Your task to perform on an android device: Open a new Chrome incognito tab Image 0: 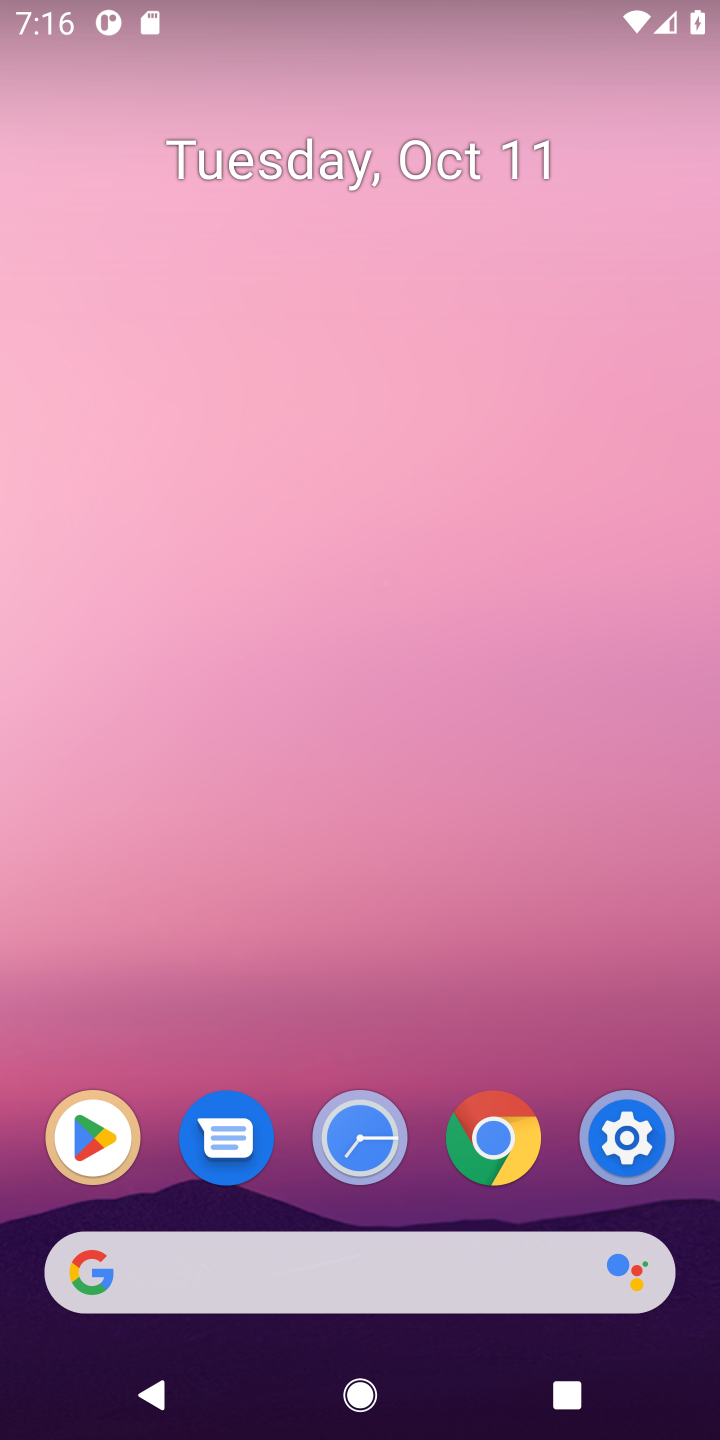
Step 0: click (501, 1111)
Your task to perform on an android device: Open a new Chrome incognito tab Image 1: 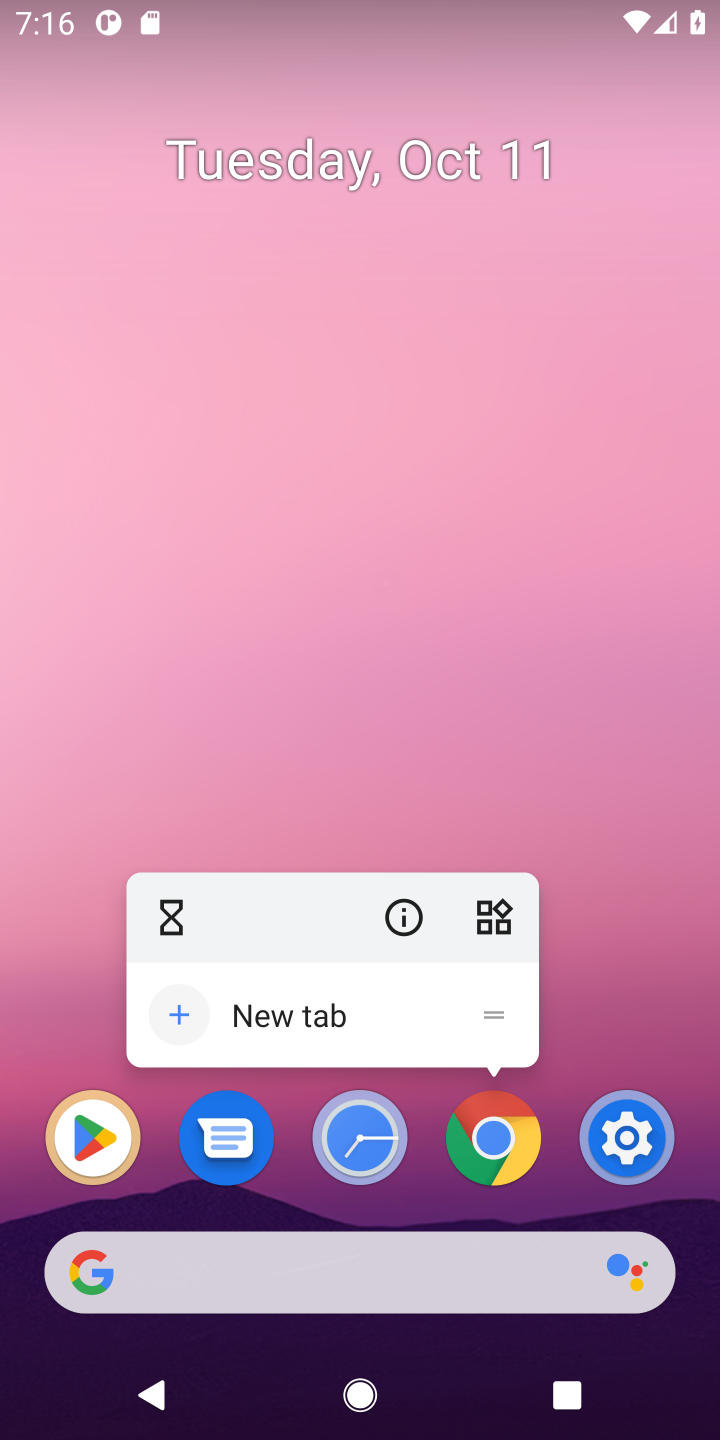
Step 1: click (484, 1132)
Your task to perform on an android device: Open a new Chrome incognito tab Image 2: 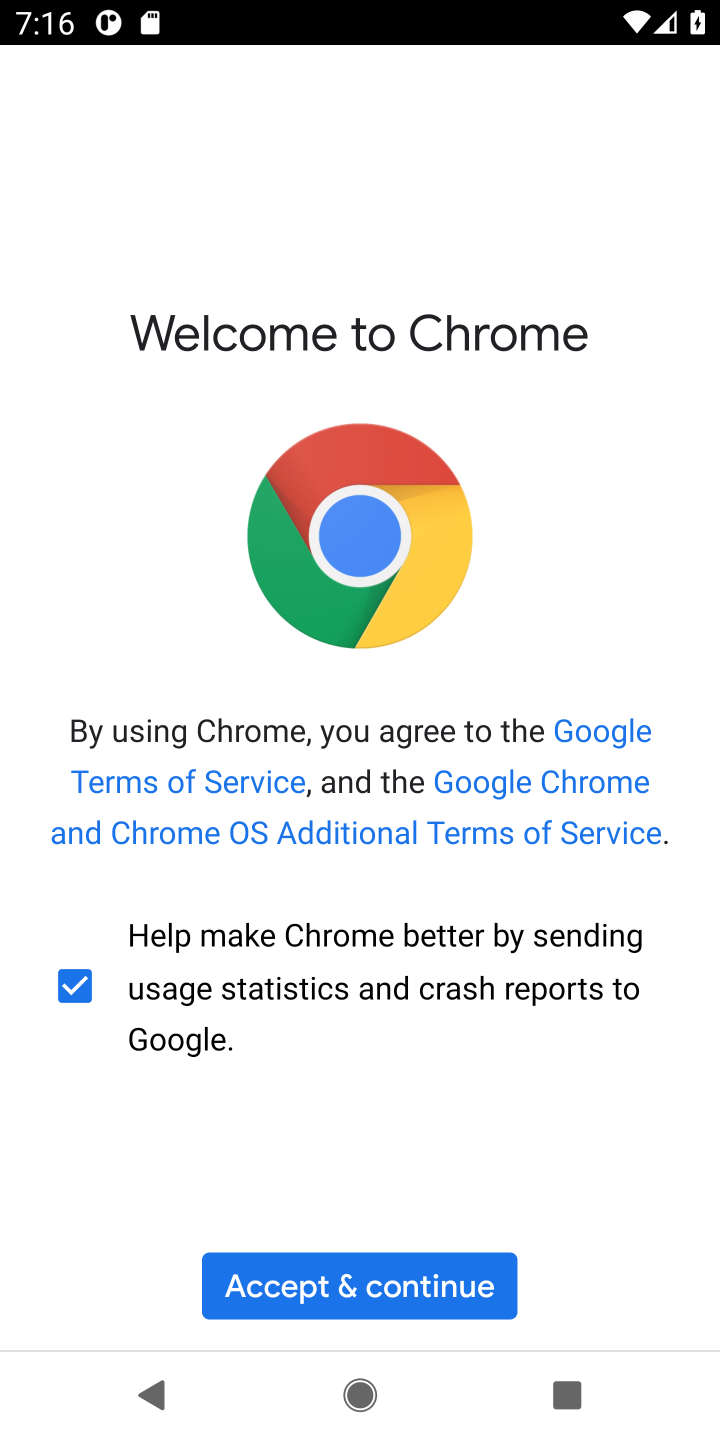
Step 2: click (317, 1280)
Your task to perform on an android device: Open a new Chrome incognito tab Image 3: 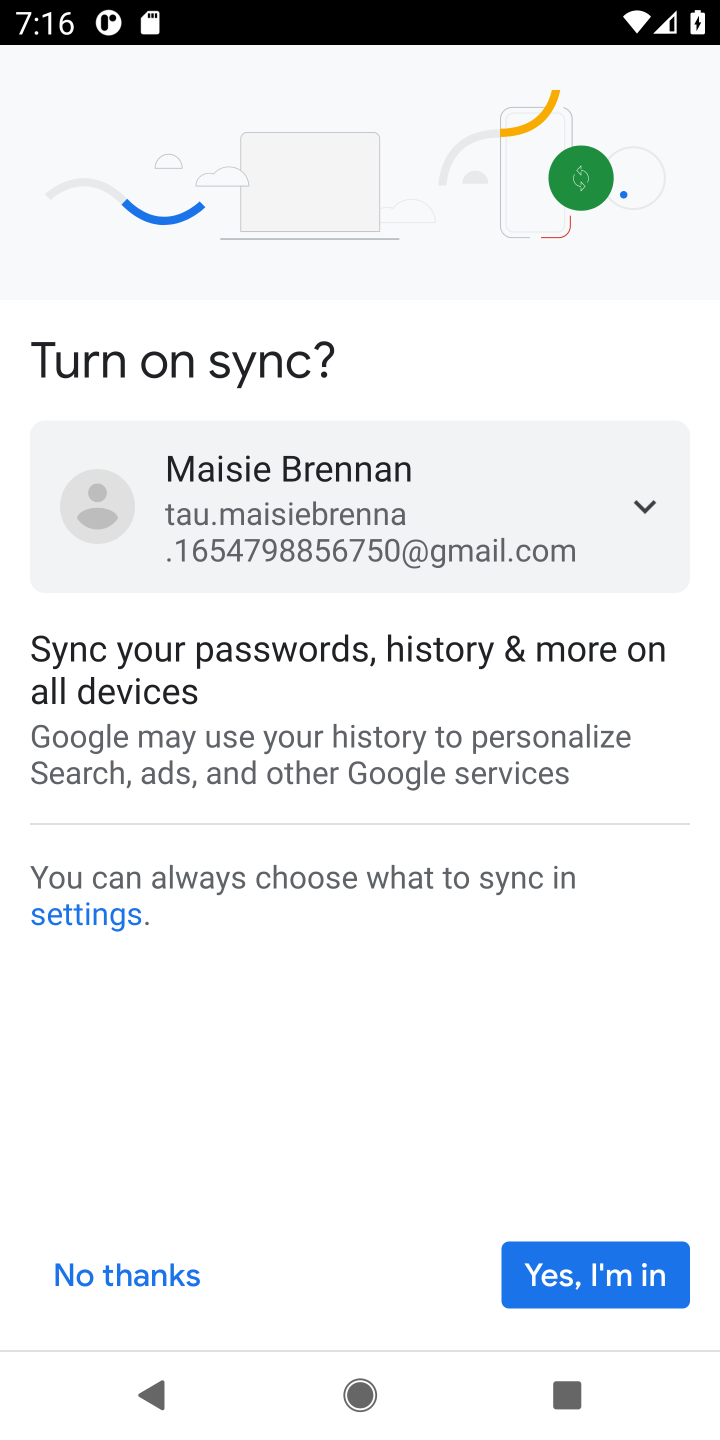
Step 3: click (552, 1283)
Your task to perform on an android device: Open a new Chrome incognito tab Image 4: 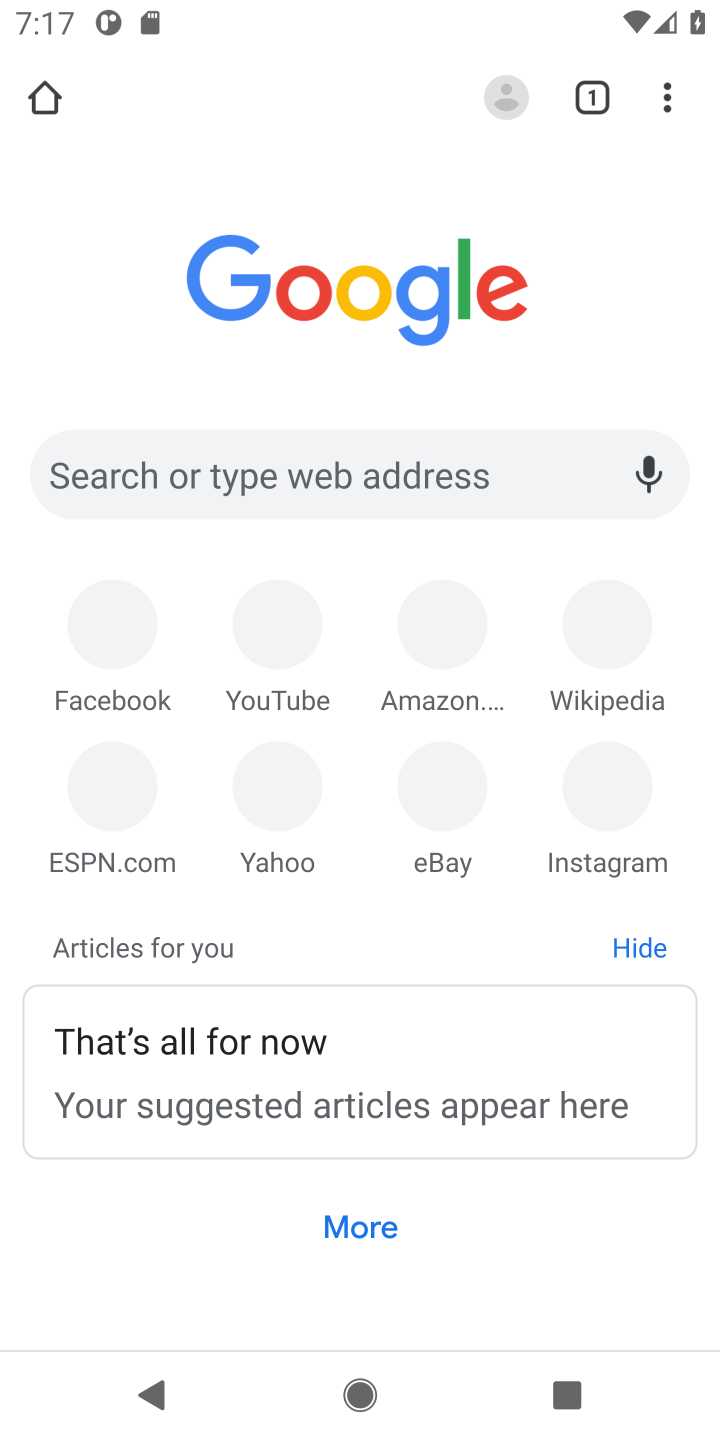
Step 4: click (665, 89)
Your task to perform on an android device: Open a new Chrome incognito tab Image 5: 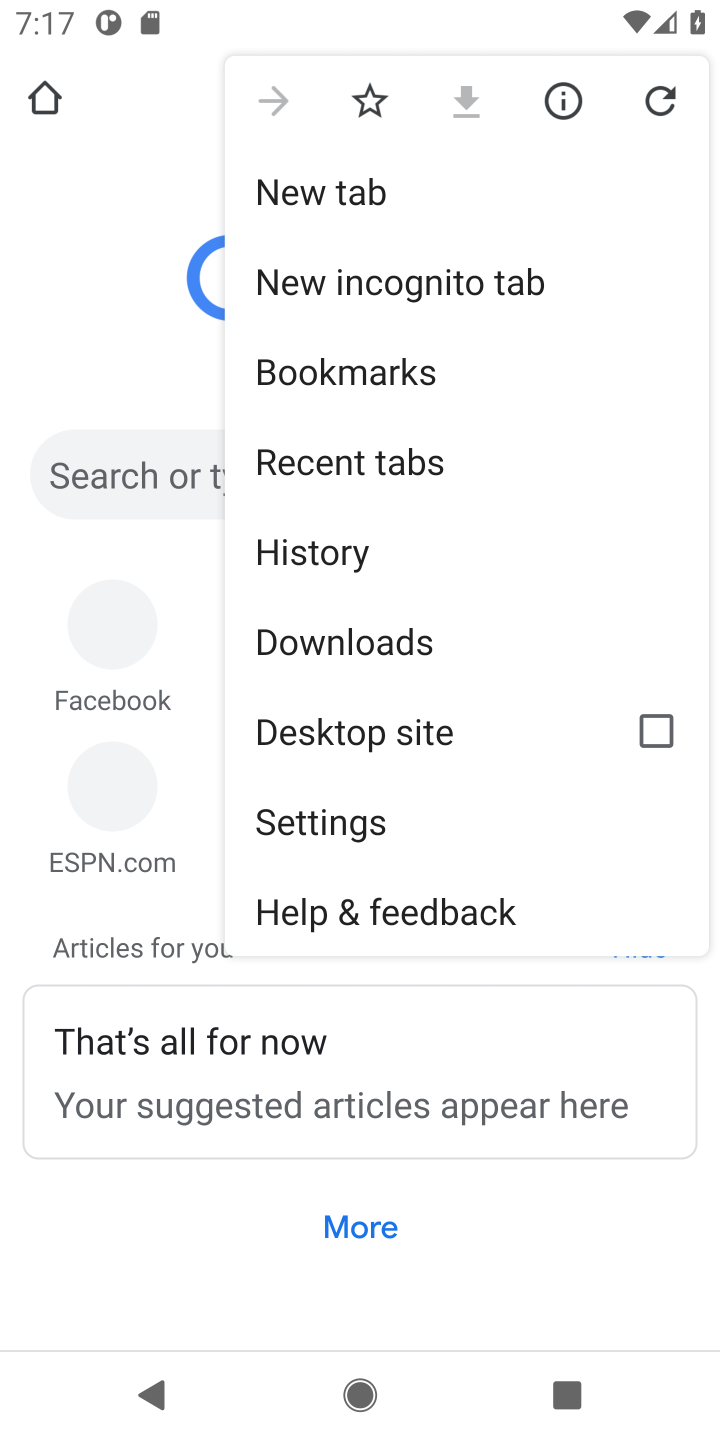
Step 5: click (422, 305)
Your task to perform on an android device: Open a new Chrome incognito tab Image 6: 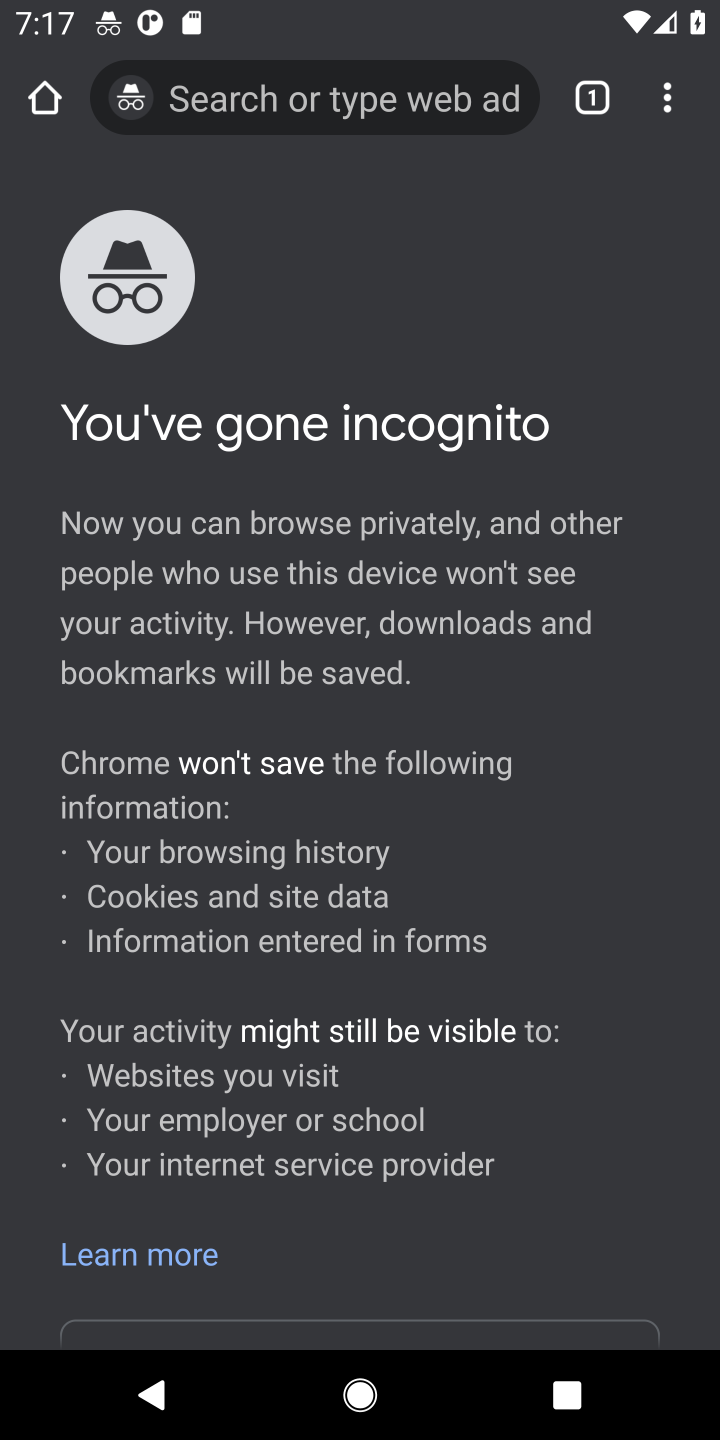
Step 6: task complete